Your task to perform on an android device: toggle show notifications on the lock screen Image 0: 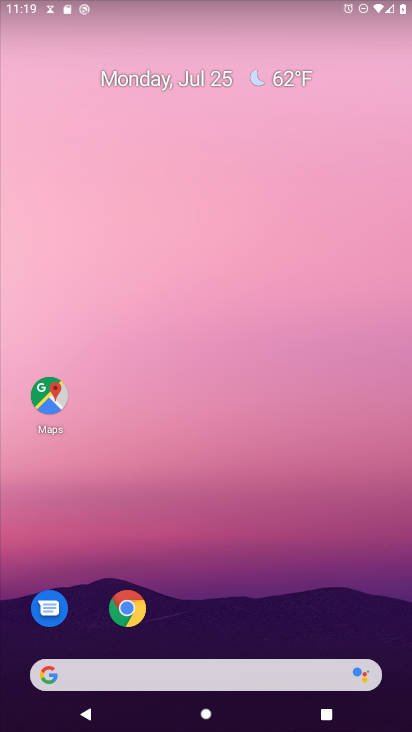
Step 0: drag from (182, 678) to (405, 716)
Your task to perform on an android device: toggle show notifications on the lock screen Image 1: 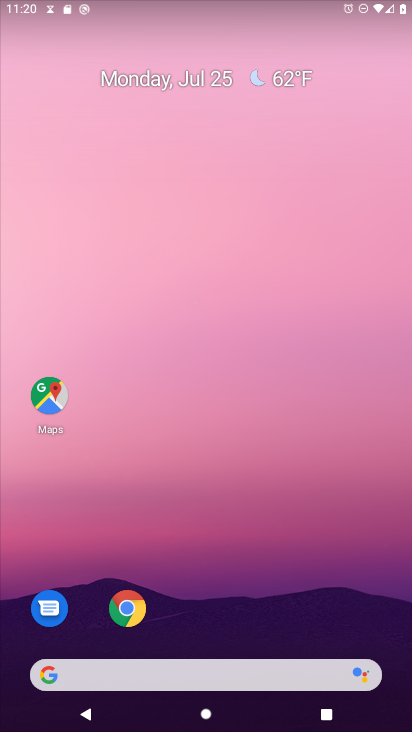
Step 1: drag from (241, 684) to (395, 4)
Your task to perform on an android device: toggle show notifications on the lock screen Image 2: 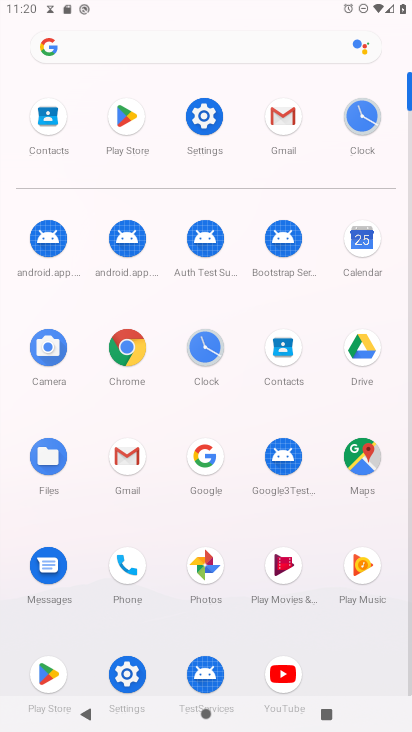
Step 2: click (205, 116)
Your task to perform on an android device: toggle show notifications on the lock screen Image 3: 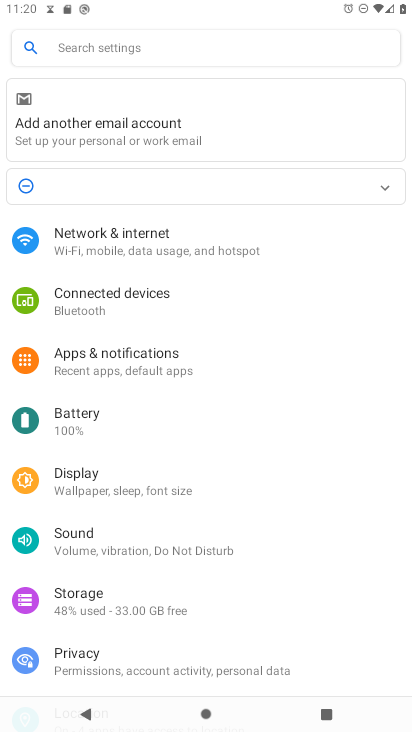
Step 3: click (143, 363)
Your task to perform on an android device: toggle show notifications on the lock screen Image 4: 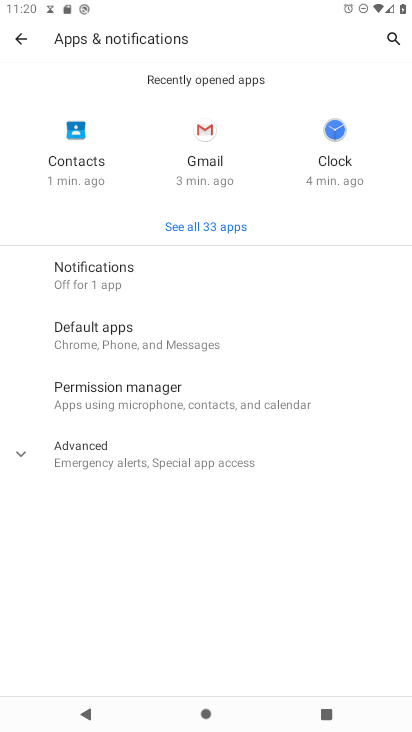
Step 4: click (95, 272)
Your task to perform on an android device: toggle show notifications on the lock screen Image 5: 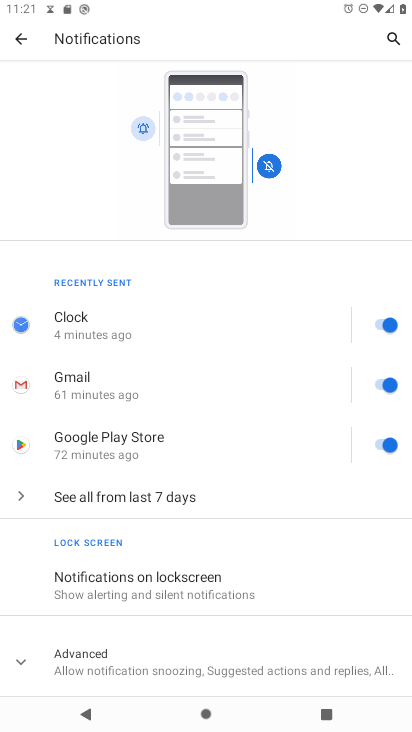
Step 5: click (130, 578)
Your task to perform on an android device: toggle show notifications on the lock screen Image 6: 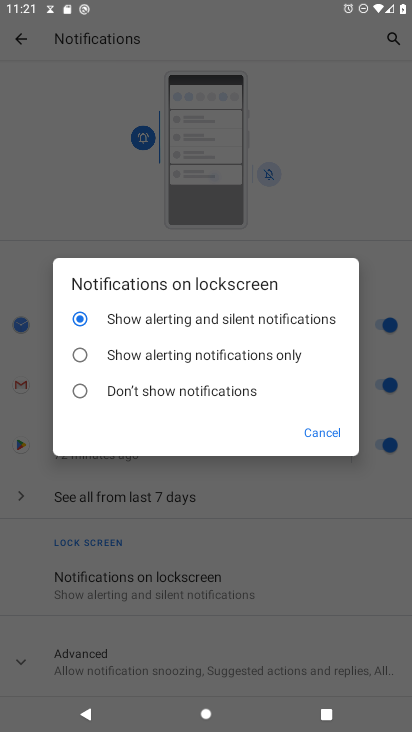
Step 6: click (79, 391)
Your task to perform on an android device: toggle show notifications on the lock screen Image 7: 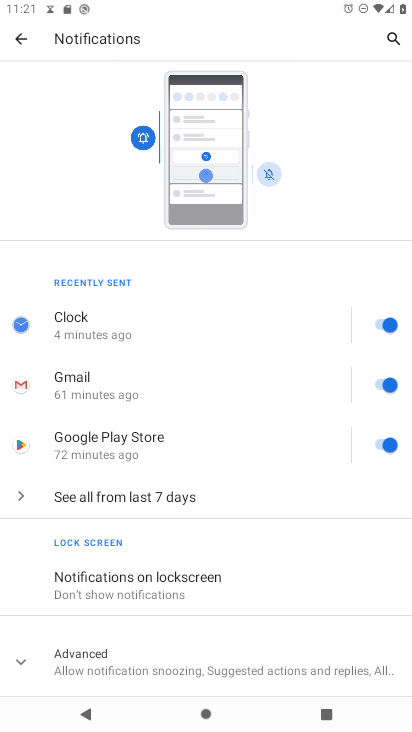
Step 7: task complete